Your task to perform on an android device: Do I have any events today? Image 0: 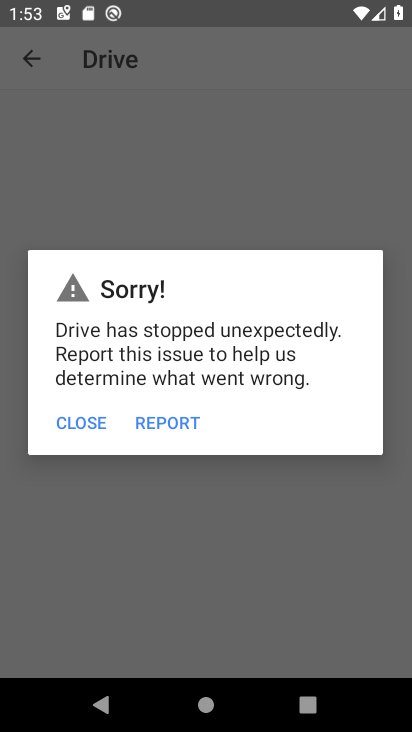
Step 0: press home button
Your task to perform on an android device: Do I have any events today? Image 1: 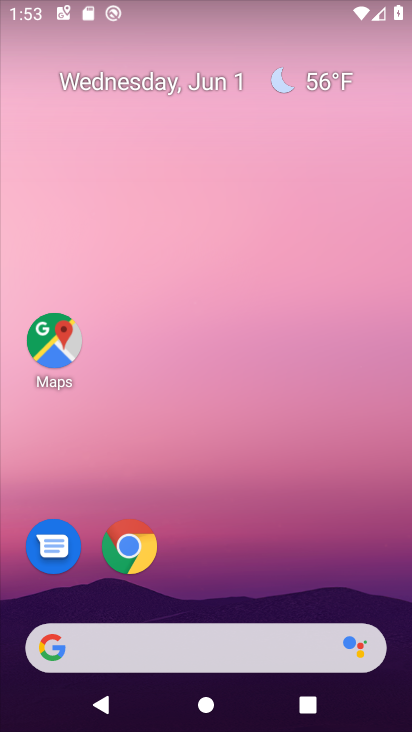
Step 1: drag from (144, 724) to (204, 133)
Your task to perform on an android device: Do I have any events today? Image 2: 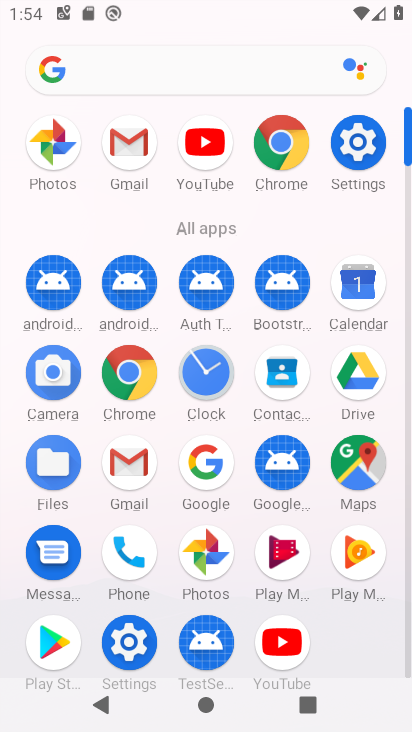
Step 2: click (369, 293)
Your task to perform on an android device: Do I have any events today? Image 3: 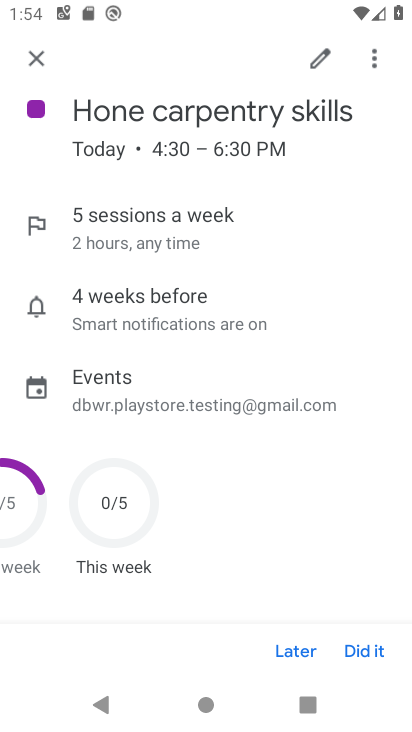
Step 3: task complete